Your task to perform on an android device: open a bookmark in the chrome app Image 0: 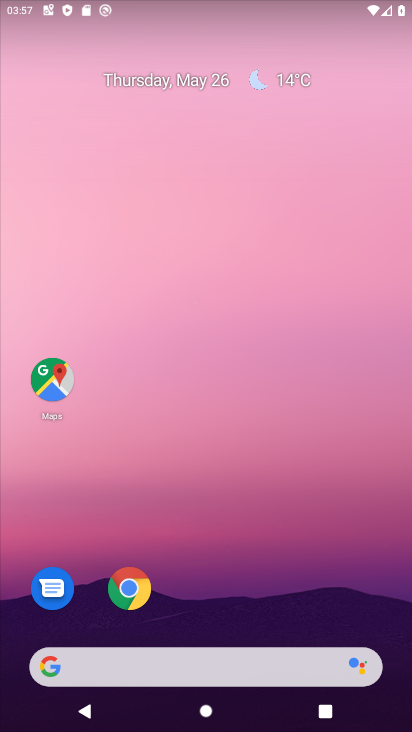
Step 0: click (130, 594)
Your task to perform on an android device: open a bookmark in the chrome app Image 1: 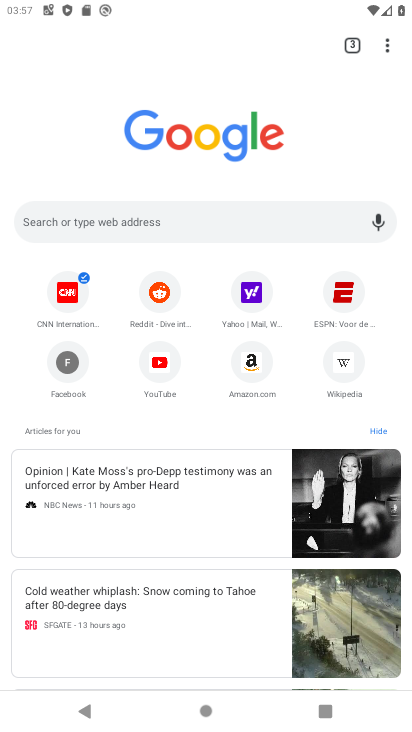
Step 1: click (381, 50)
Your task to perform on an android device: open a bookmark in the chrome app Image 2: 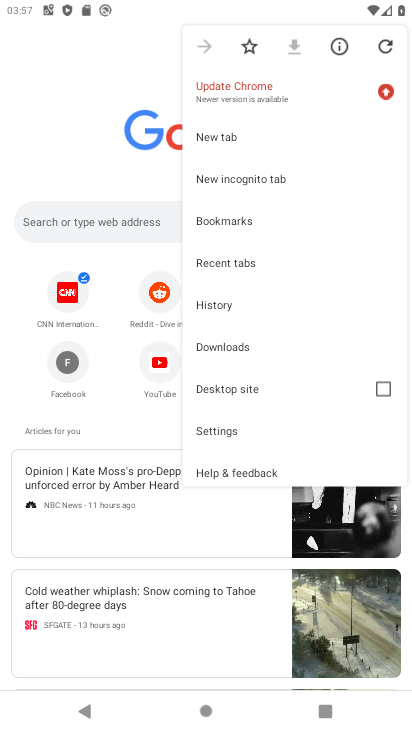
Step 2: click (246, 228)
Your task to perform on an android device: open a bookmark in the chrome app Image 3: 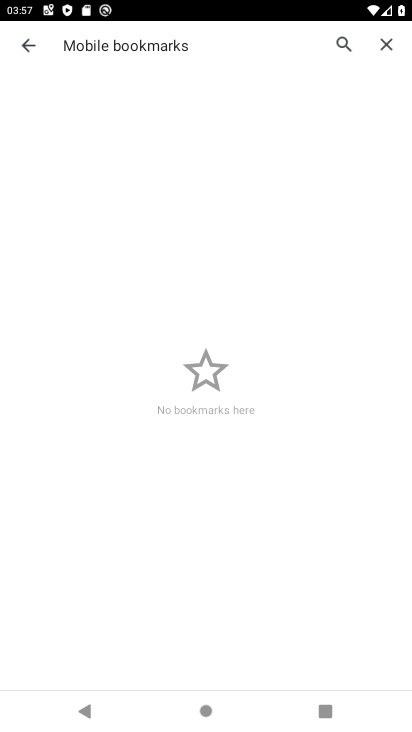
Step 3: task complete